Your task to perform on an android device: open a bookmark in the chrome app Image 0: 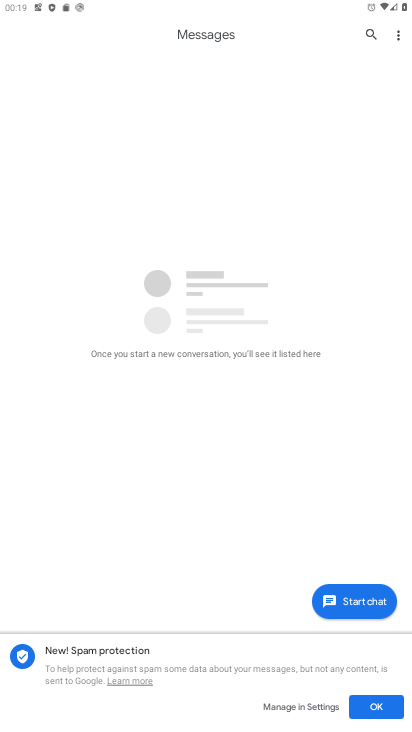
Step 0: click (246, 713)
Your task to perform on an android device: open a bookmark in the chrome app Image 1: 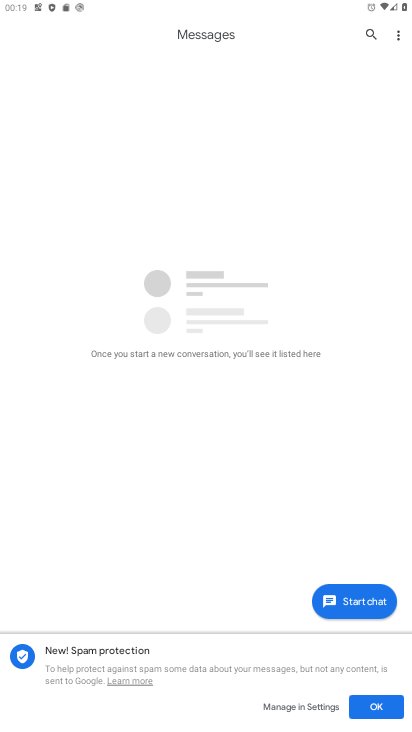
Step 1: press home button
Your task to perform on an android device: open a bookmark in the chrome app Image 2: 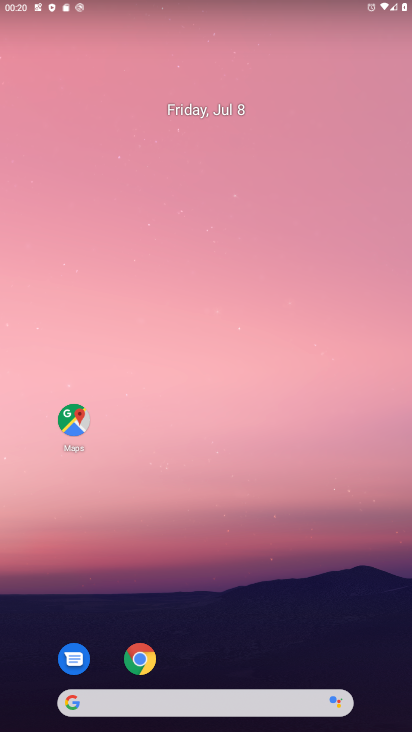
Step 2: click (141, 654)
Your task to perform on an android device: open a bookmark in the chrome app Image 3: 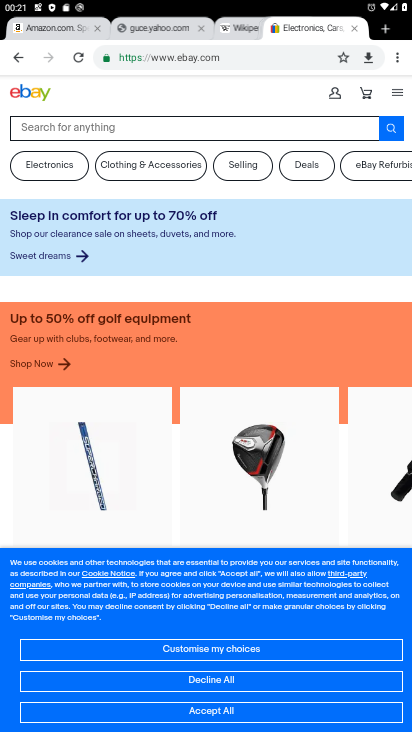
Step 3: click (393, 61)
Your task to perform on an android device: open a bookmark in the chrome app Image 4: 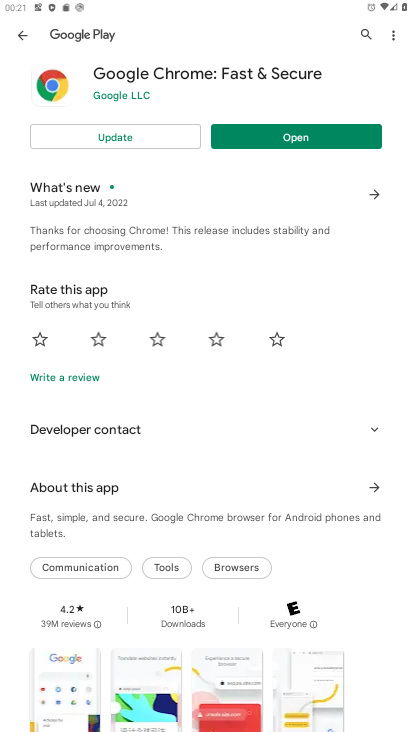
Step 4: press home button
Your task to perform on an android device: open a bookmark in the chrome app Image 5: 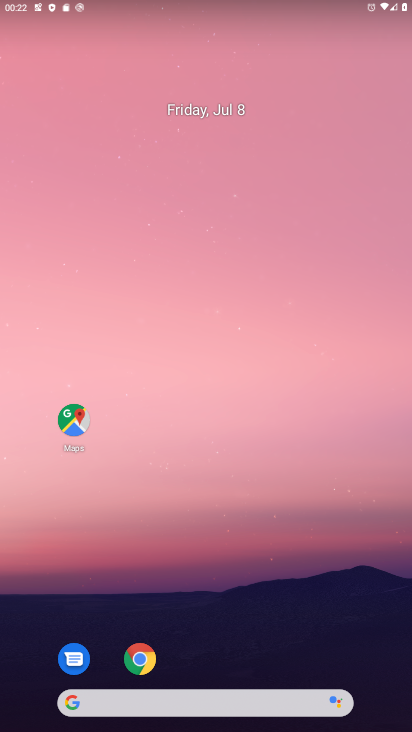
Step 5: click (132, 653)
Your task to perform on an android device: open a bookmark in the chrome app Image 6: 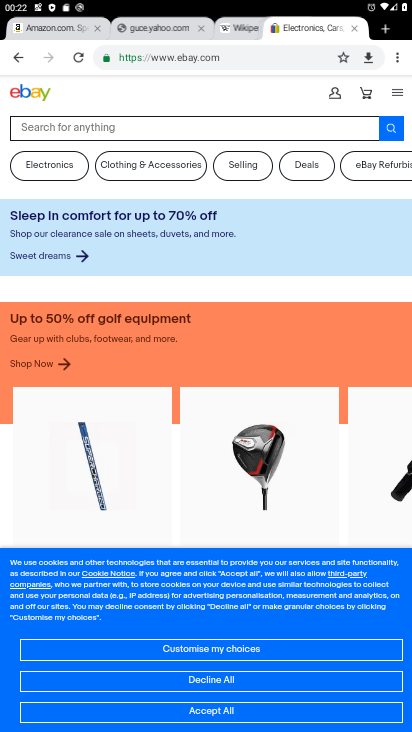
Step 6: click (401, 56)
Your task to perform on an android device: open a bookmark in the chrome app Image 7: 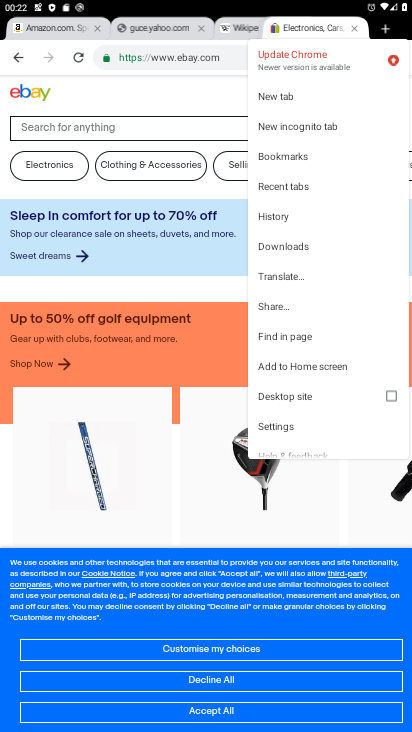
Step 7: click (290, 159)
Your task to perform on an android device: open a bookmark in the chrome app Image 8: 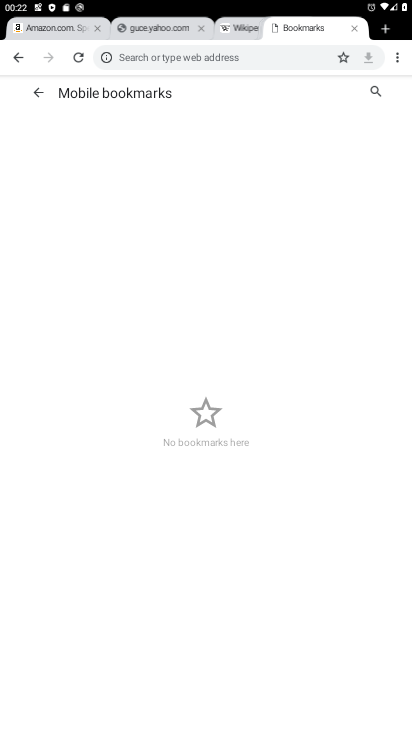
Step 8: task complete